Your task to perform on an android device: set an alarm Image 0: 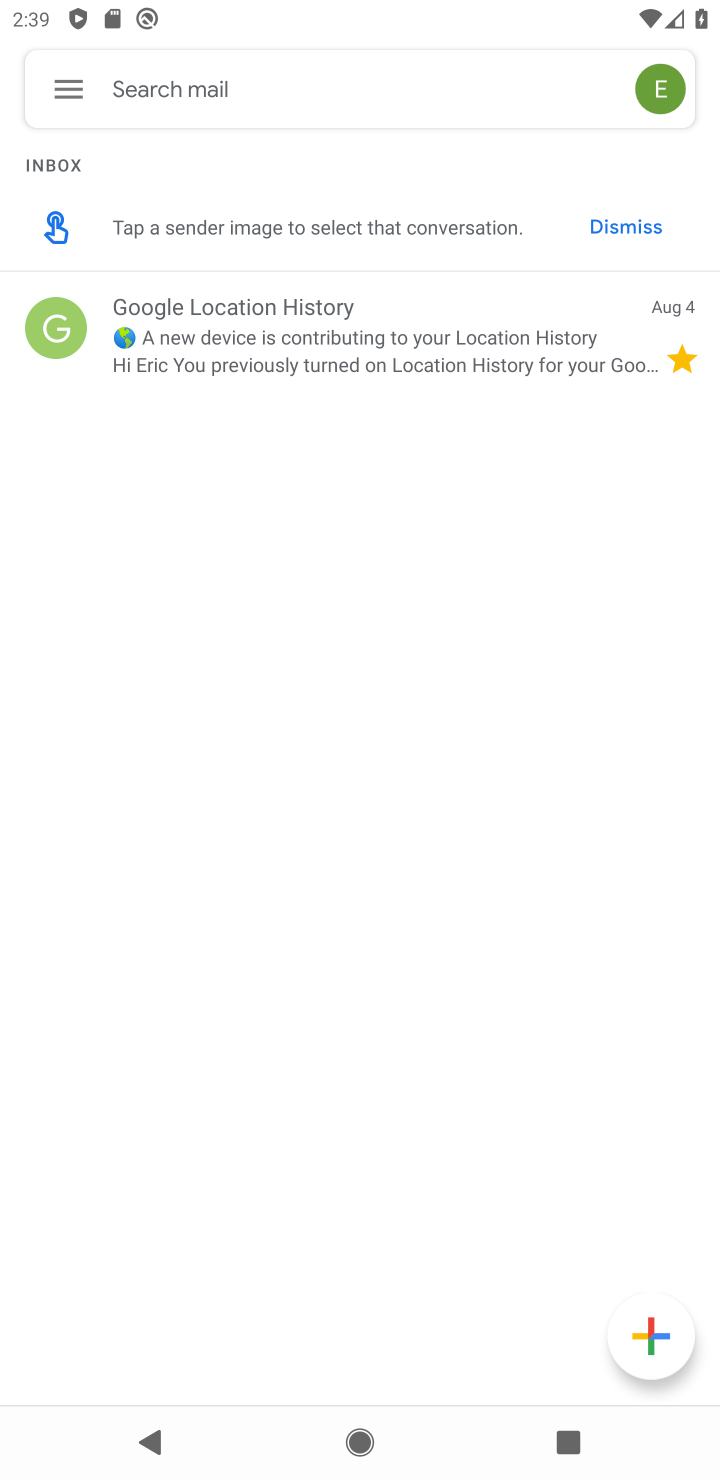
Step 0: press home button
Your task to perform on an android device: set an alarm Image 1: 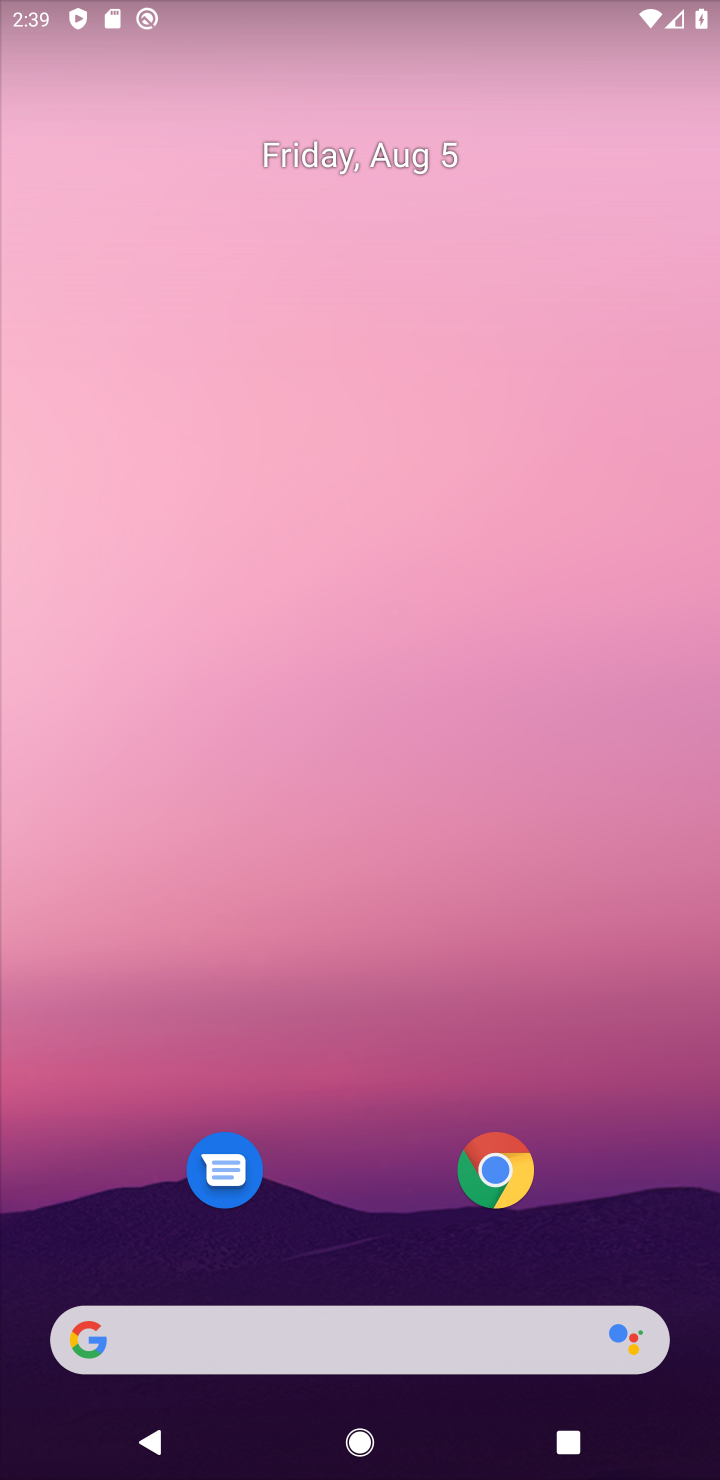
Step 1: drag from (233, 448) to (217, 335)
Your task to perform on an android device: set an alarm Image 2: 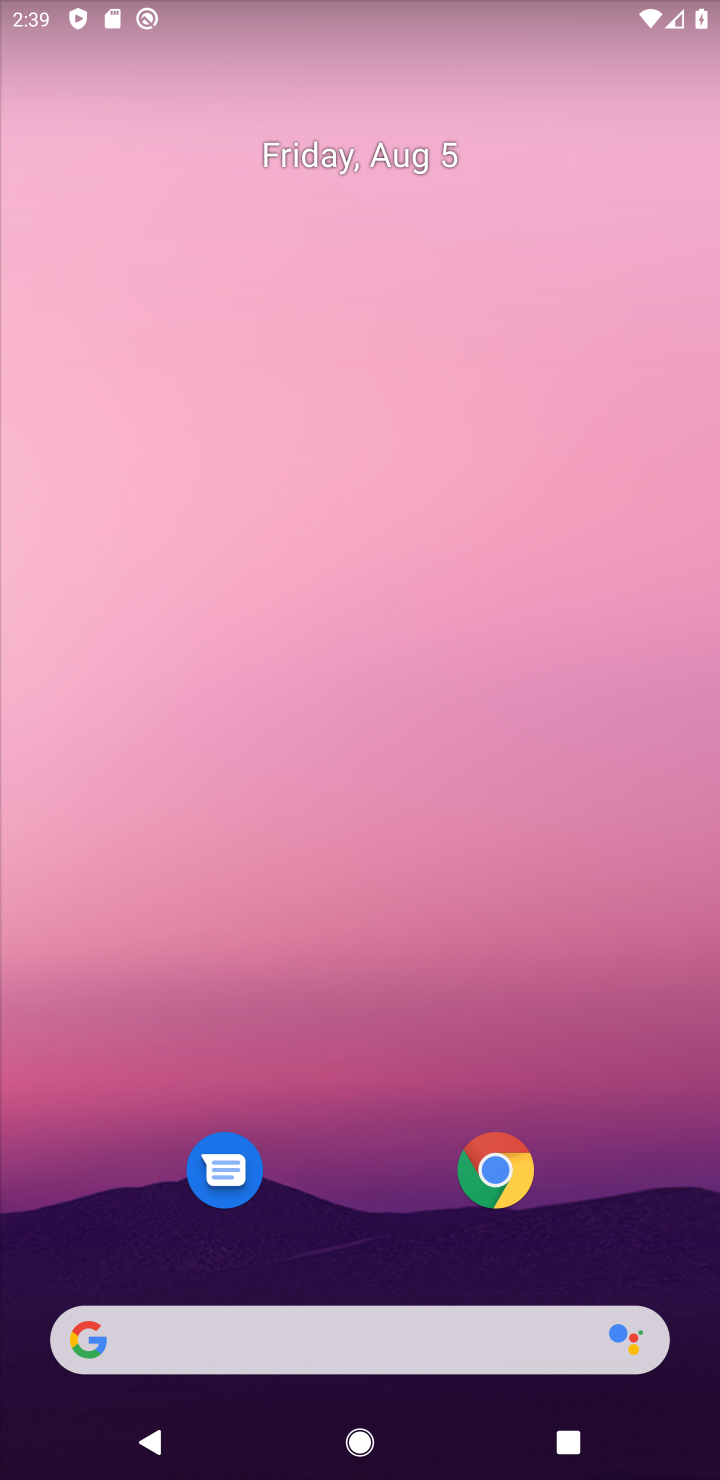
Step 2: drag from (410, 1113) to (297, 366)
Your task to perform on an android device: set an alarm Image 3: 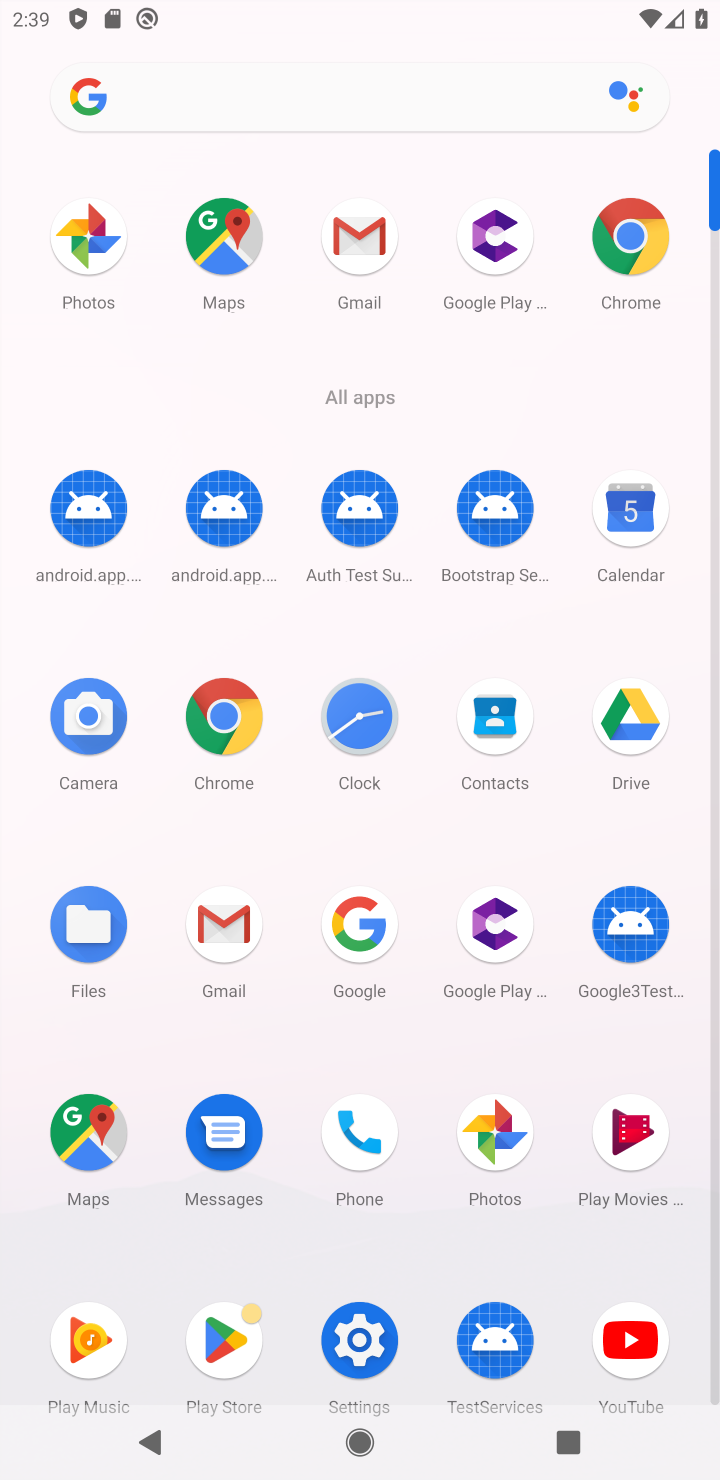
Step 3: click (345, 723)
Your task to perform on an android device: set an alarm Image 4: 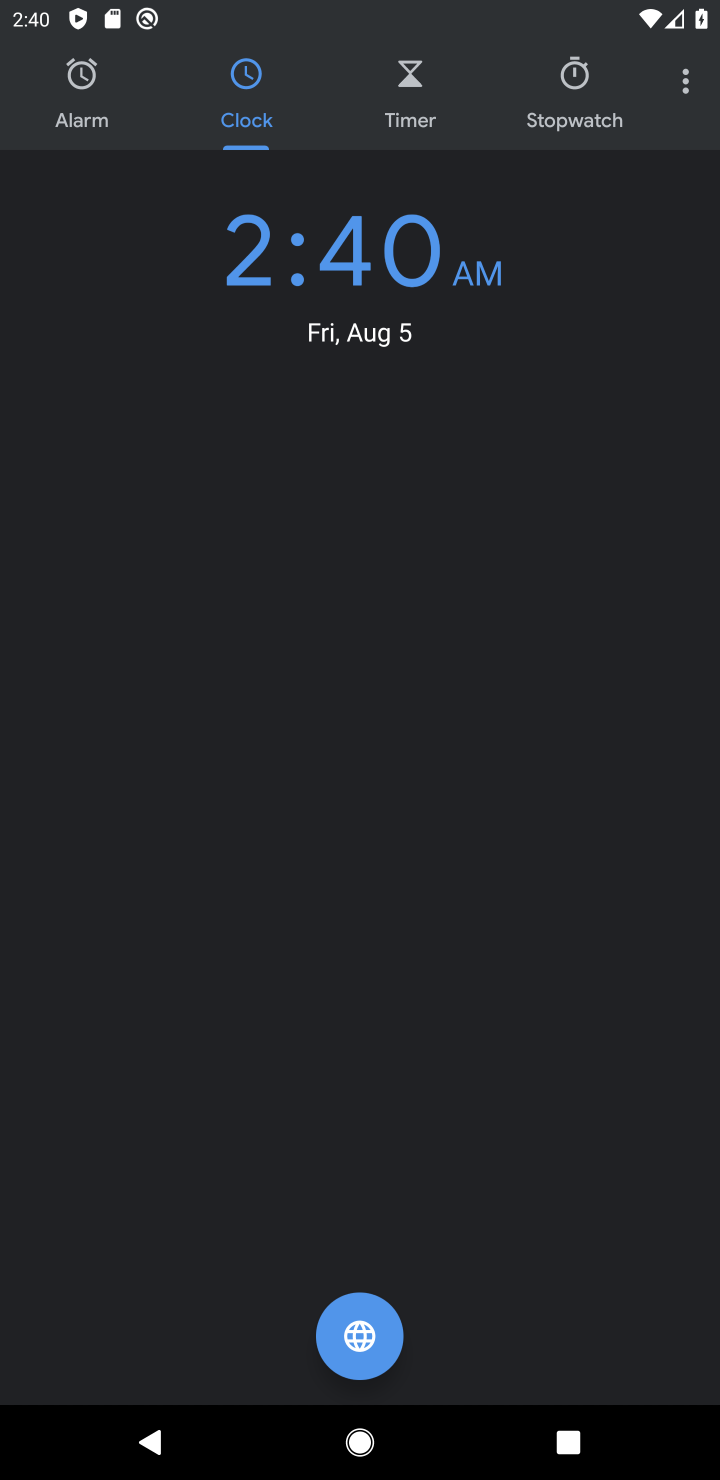
Step 4: task complete